Your task to perform on an android device: Open sound settings Image 0: 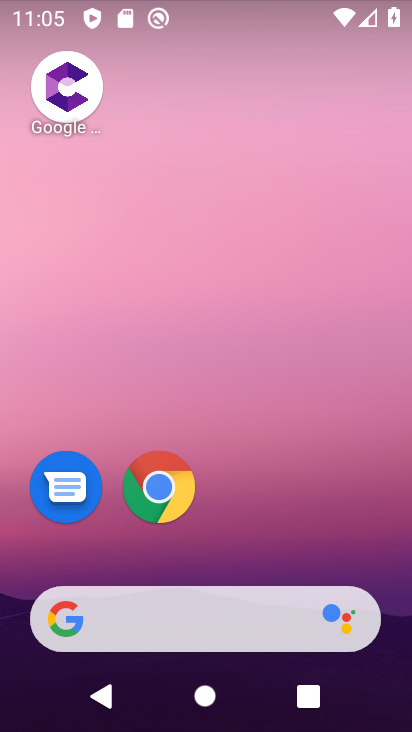
Step 0: drag from (245, 536) to (333, 7)
Your task to perform on an android device: Open sound settings Image 1: 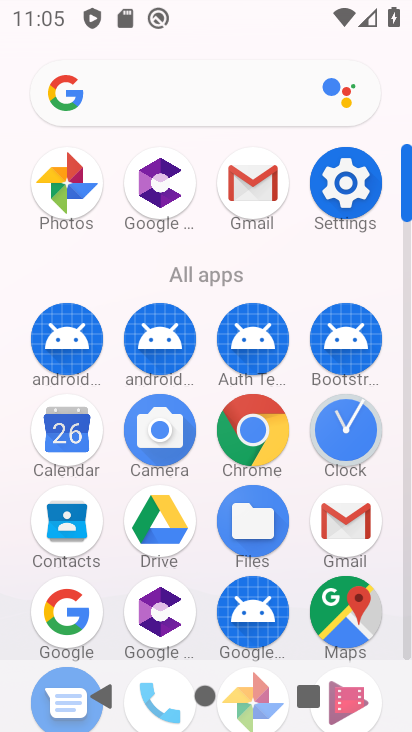
Step 1: click (349, 191)
Your task to perform on an android device: Open sound settings Image 2: 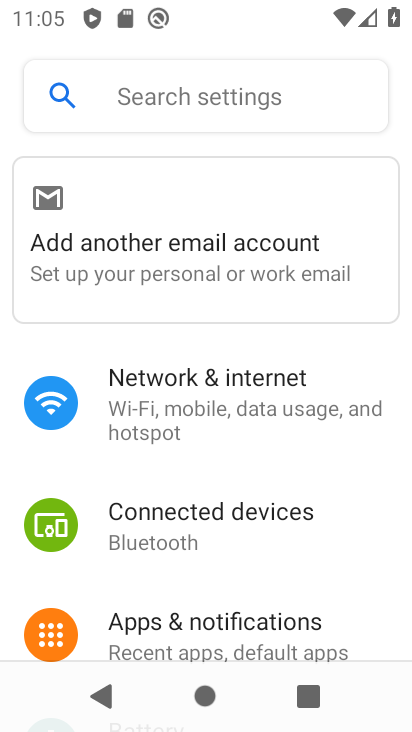
Step 2: drag from (206, 589) to (282, 17)
Your task to perform on an android device: Open sound settings Image 3: 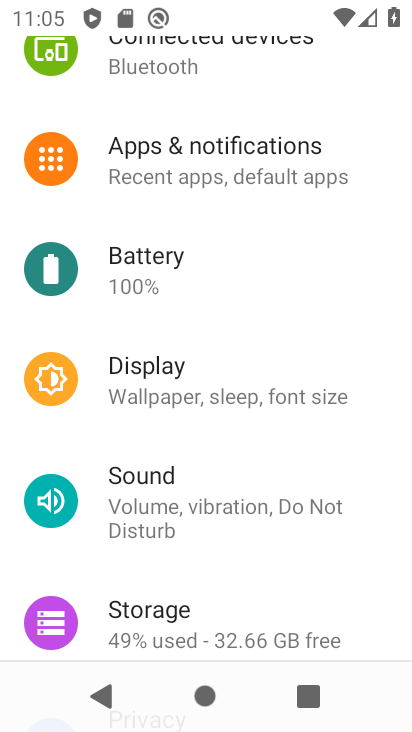
Step 3: click (172, 497)
Your task to perform on an android device: Open sound settings Image 4: 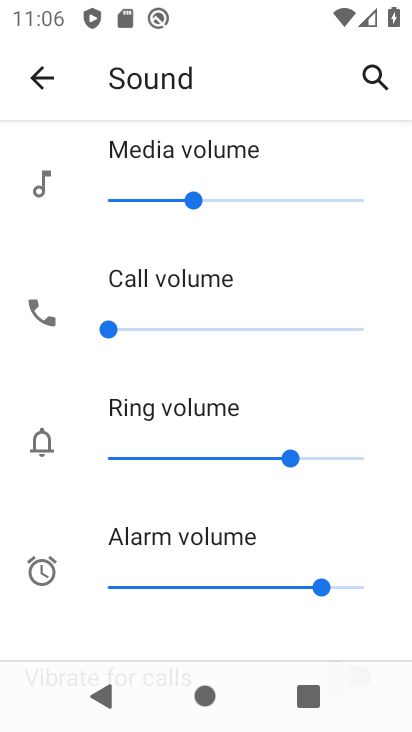
Step 4: task complete